Your task to perform on an android device: allow cookies in the chrome app Image 0: 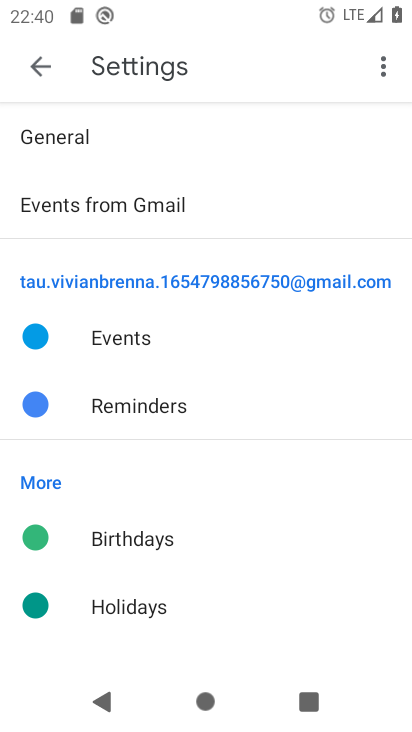
Step 0: press home button
Your task to perform on an android device: allow cookies in the chrome app Image 1: 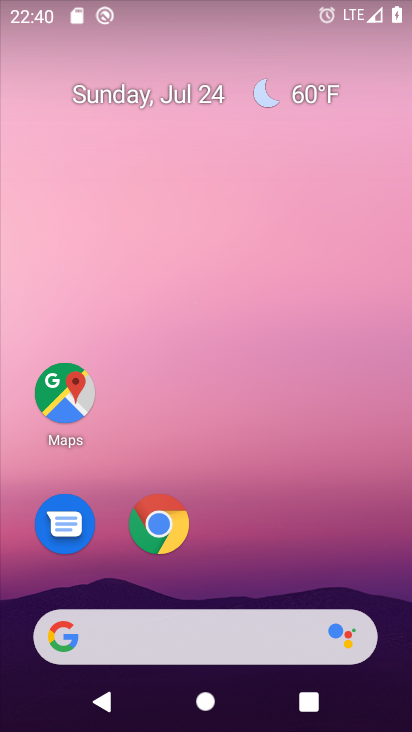
Step 1: click (174, 521)
Your task to perform on an android device: allow cookies in the chrome app Image 2: 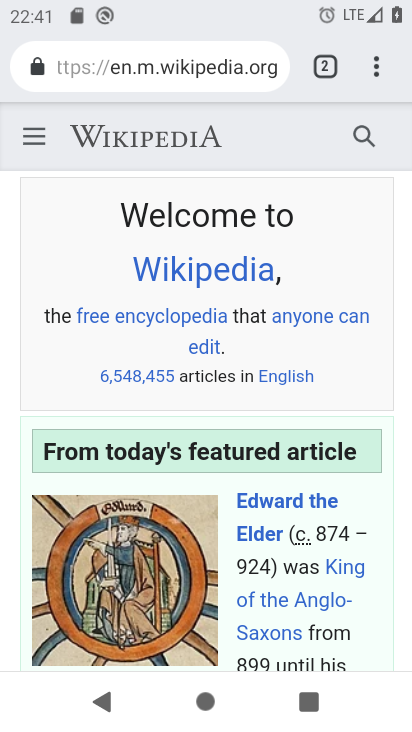
Step 2: click (375, 71)
Your task to perform on an android device: allow cookies in the chrome app Image 3: 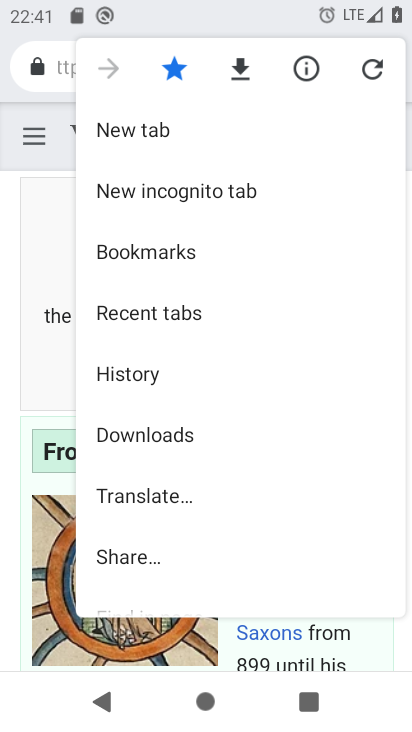
Step 3: drag from (234, 442) to (264, 162)
Your task to perform on an android device: allow cookies in the chrome app Image 4: 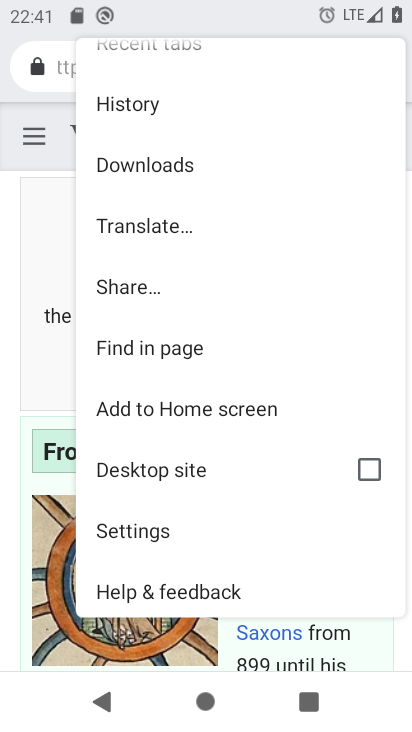
Step 4: click (152, 534)
Your task to perform on an android device: allow cookies in the chrome app Image 5: 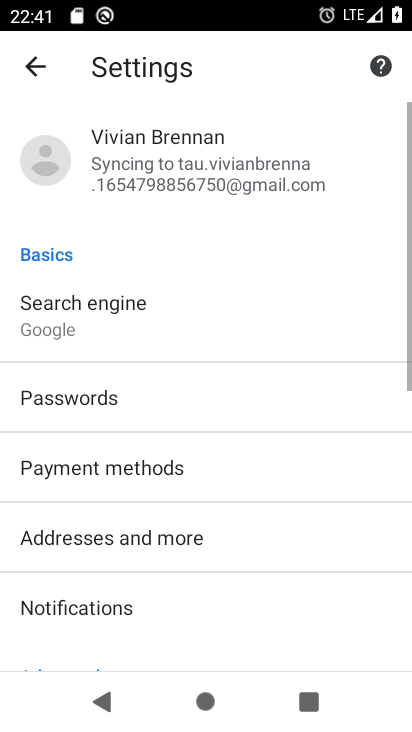
Step 5: drag from (252, 484) to (248, 309)
Your task to perform on an android device: allow cookies in the chrome app Image 6: 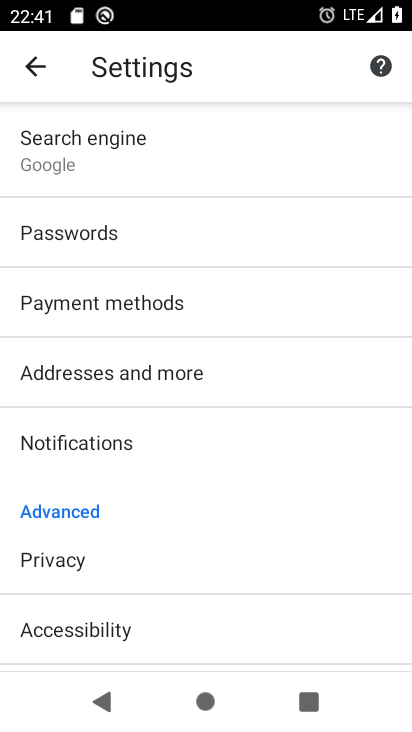
Step 6: drag from (151, 524) to (150, 300)
Your task to perform on an android device: allow cookies in the chrome app Image 7: 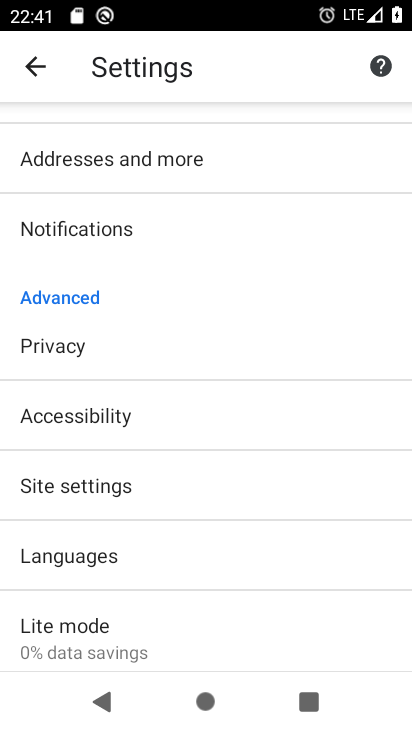
Step 7: click (115, 482)
Your task to perform on an android device: allow cookies in the chrome app Image 8: 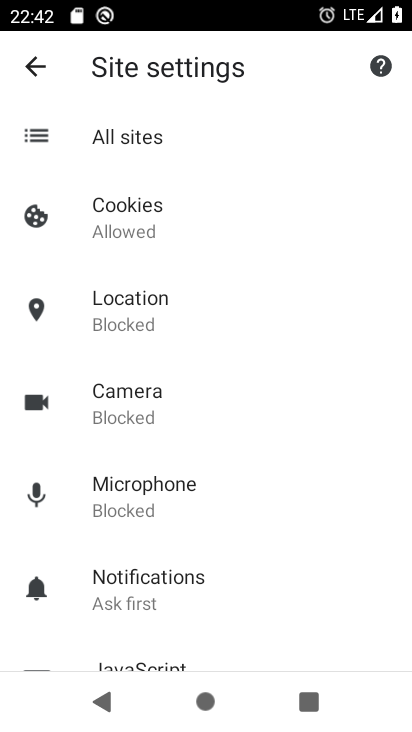
Step 8: click (147, 220)
Your task to perform on an android device: allow cookies in the chrome app Image 9: 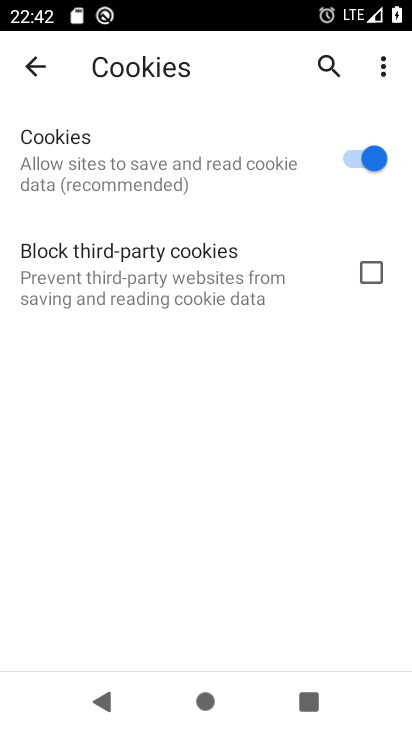
Step 9: task complete